Your task to perform on an android device: change the upload size in google photos Image 0: 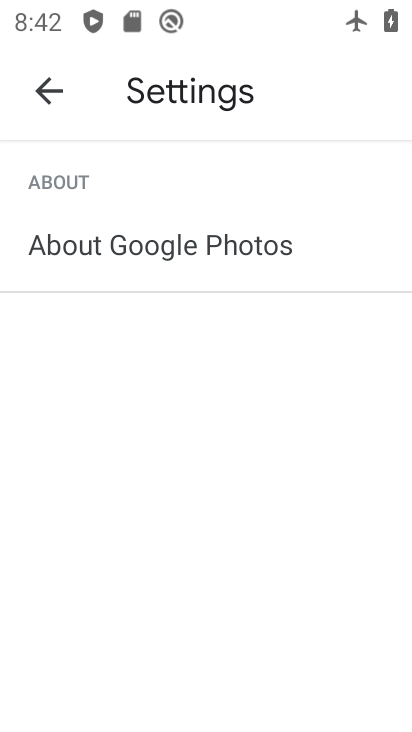
Step 0: click (49, 87)
Your task to perform on an android device: change the upload size in google photos Image 1: 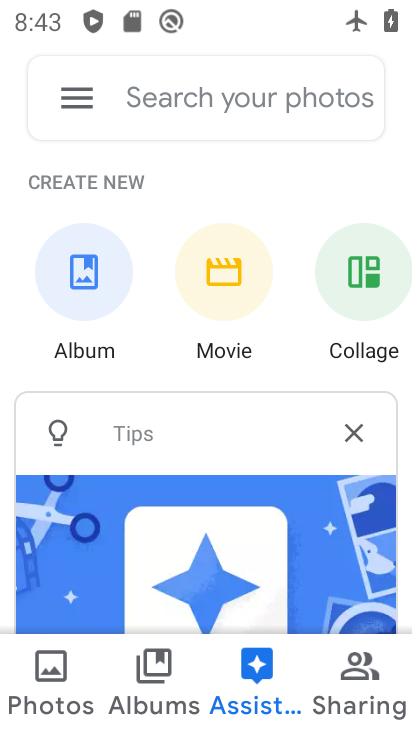
Step 1: click (54, 98)
Your task to perform on an android device: change the upload size in google photos Image 2: 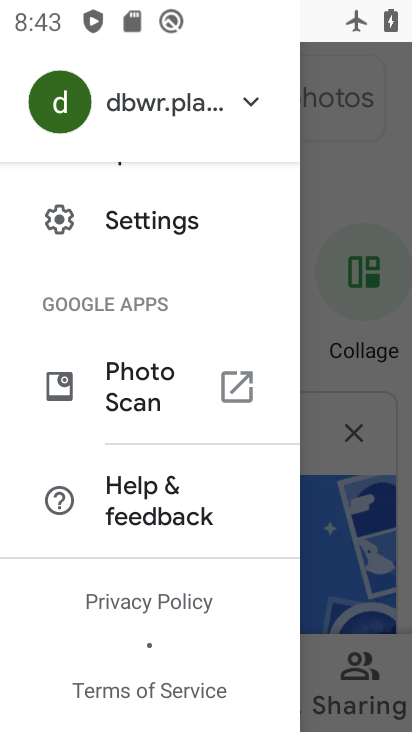
Step 2: click (196, 241)
Your task to perform on an android device: change the upload size in google photos Image 3: 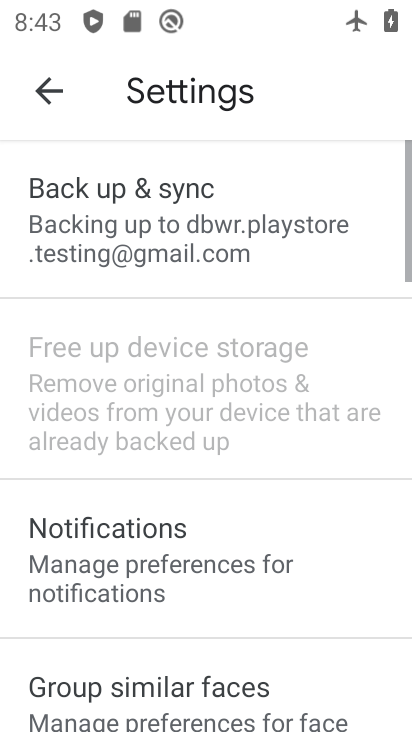
Step 3: click (203, 229)
Your task to perform on an android device: change the upload size in google photos Image 4: 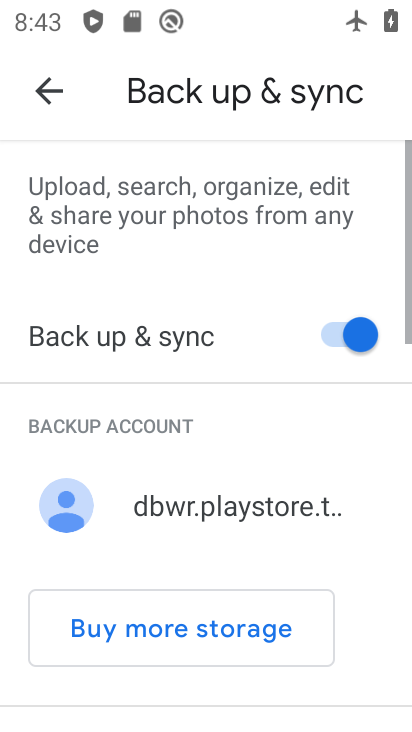
Step 4: drag from (143, 572) to (181, 157)
Your task to perform on an android device: change the upload size in google photos Image 5: 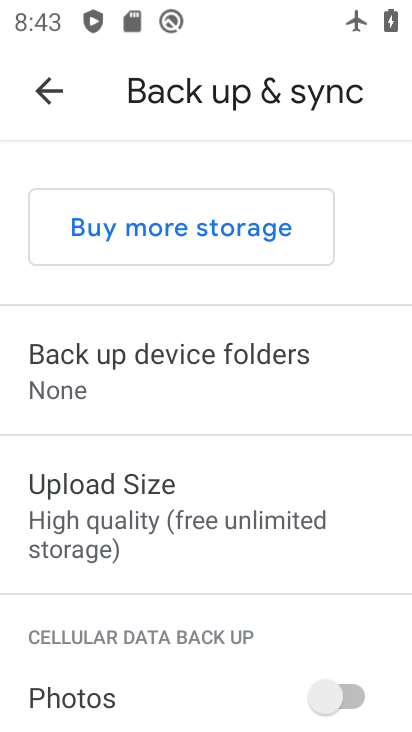
Step 5: click (201, 512)
Your task to perform on an android device: change the upload size in google photos Image 6: 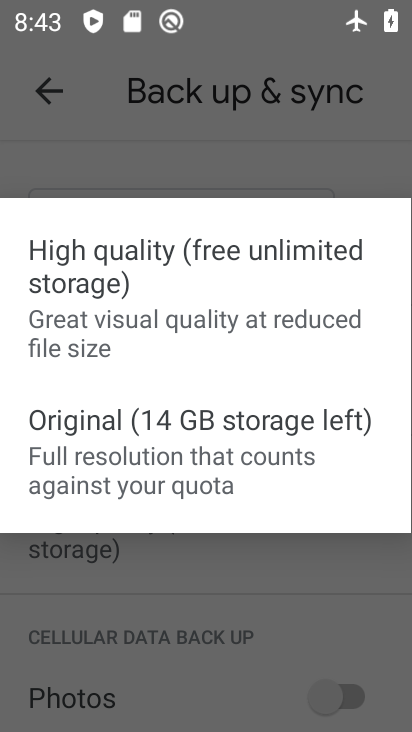
Step 6: click (177, 454)
Your task to perform on an android device: change the upload size in google photos Image 7: 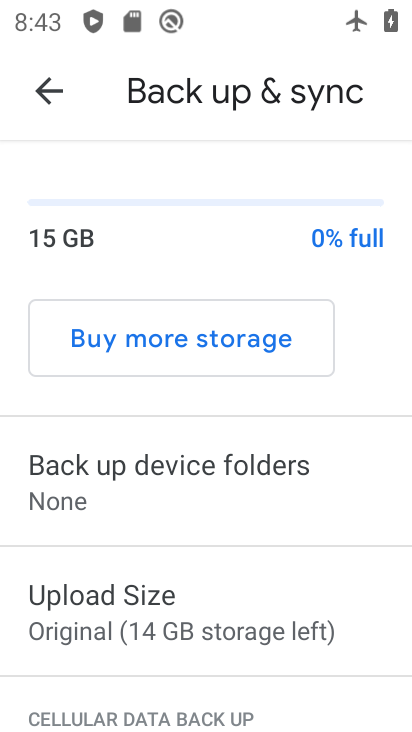
Step 7: task complete